Your task to perform on an android device: Show me productivity apps on the Play Store Image 0: 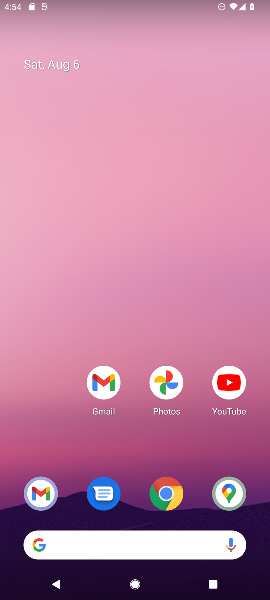
Step 0: press back button
Your task to perform on an android device: Show me productivity apps on the Play Store Image 1: 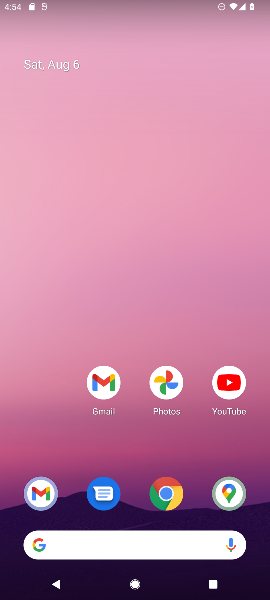
Step 1: drag from (158, 571) to (107, 264)
Your task to perform on an android device: Show me productivity apps on the Play Store Image 2: 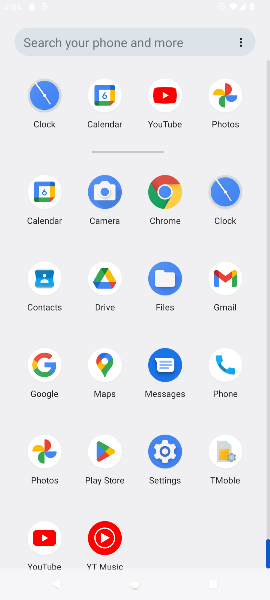
Step 2: drag from (190, 549) to (152, 234)
Your task to perform on an android device: Show me productivity apps on the Play Store Image 3: 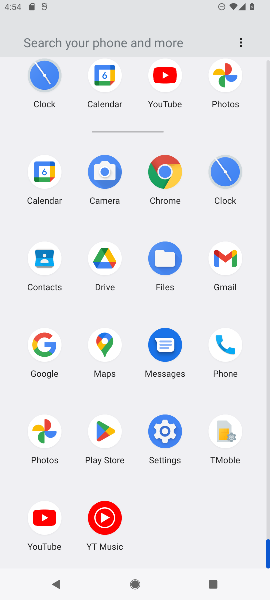
Step 3: click (113, 346)
Your task to perform on an android device: Show me productivity apps on the Play Store Image 4: 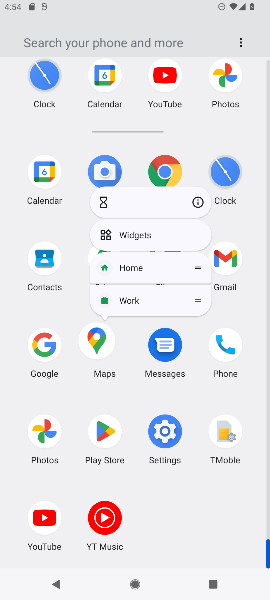
Step 4: click (105, 342)
Your task to perform on an android device: Show me productivity apps on the Play Store Image 5: 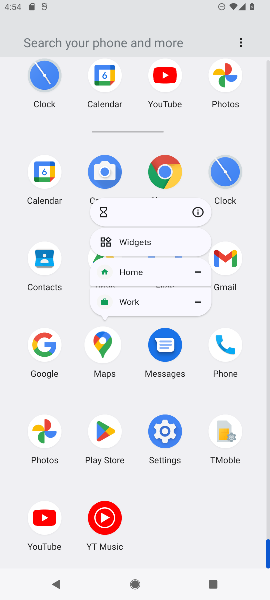
Step 5: click (99, 348)
Your task to perform on an android device: Show me productivity apps on the Play Store Image 6: 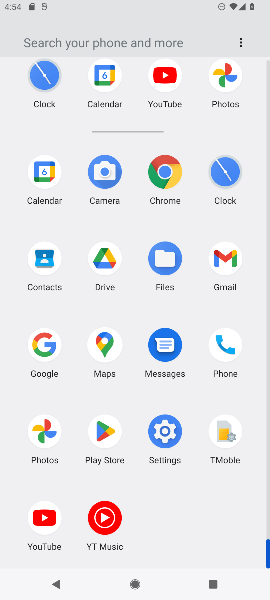
Step 6: click (110, 345)
Your task to perform on an android device: Show me productivity apps on the Play Store Image 7: 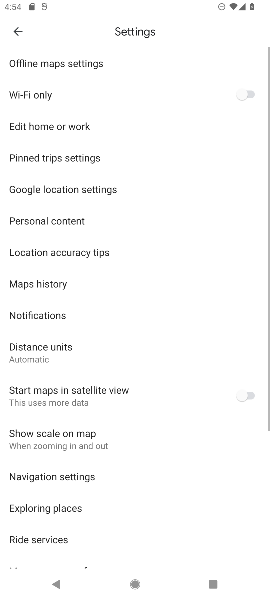
Step 7: click (13, 26)
Your task to perform on an android device: Show me productivity apps on the Play Store Image 8: 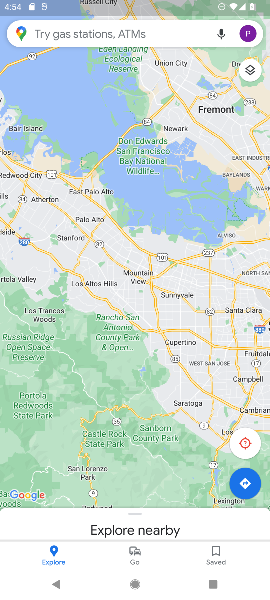
Step 8: click (90, 37)
Your task to perform on an android device: Show me productivity apps on the Play Store Image 9: 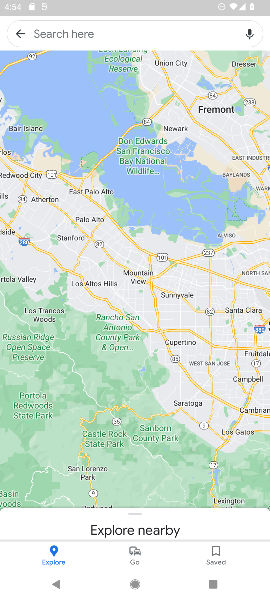
Step 9: click (90, 37)
Your task to perform on an android device: Show me productivity apps on the Play Store Image 10: 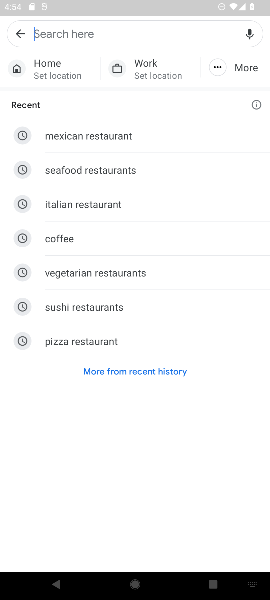
Step 10: click (90, 37)
Your task to perform on an android device: Show me productivity apps on the Play Store Image 11: 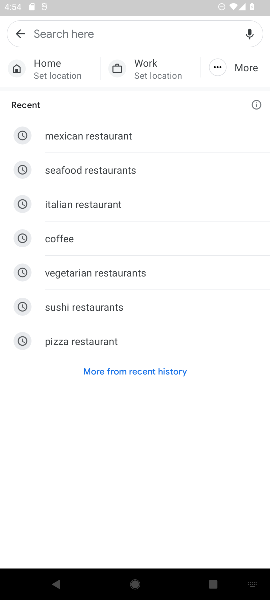
Step 11: type "productivity apps"
Your task to perform on an android device: Show me productivity apps on the Play Store Image 12: 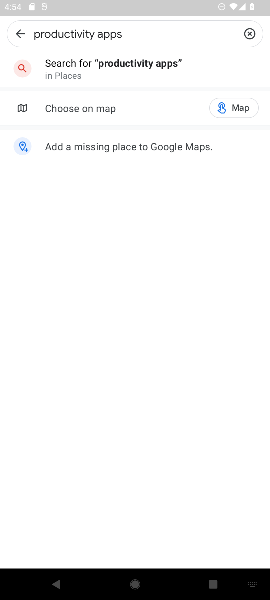
Step 12: click (134, 58)
Your task to perform on an android device: Show me productivity apps on the Play Store Image 13: 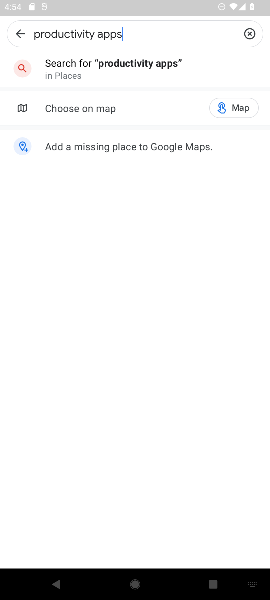
Step 13: click (134, 58)
Your task to perform on an android device: Show me productivity apps on the Play Store Image 14: 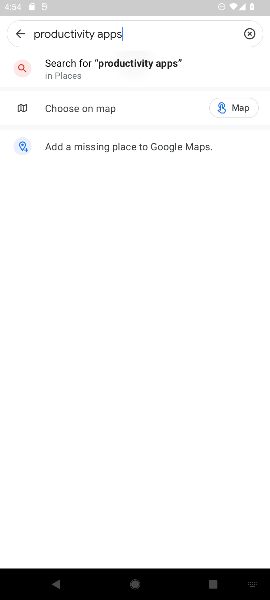
Step 14: click (134, 58)
Your task to perform on an android device: Show me productivity apps on the Play Store Image 15: 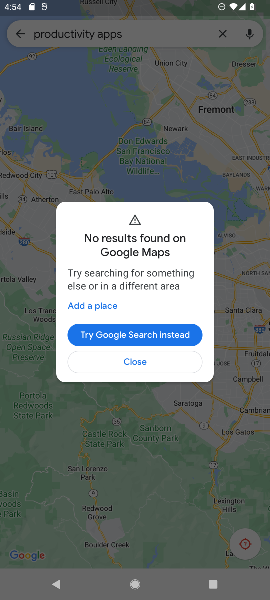
Step 15: task complete